Your task to perform on an android device: Open Amazon Image 0: 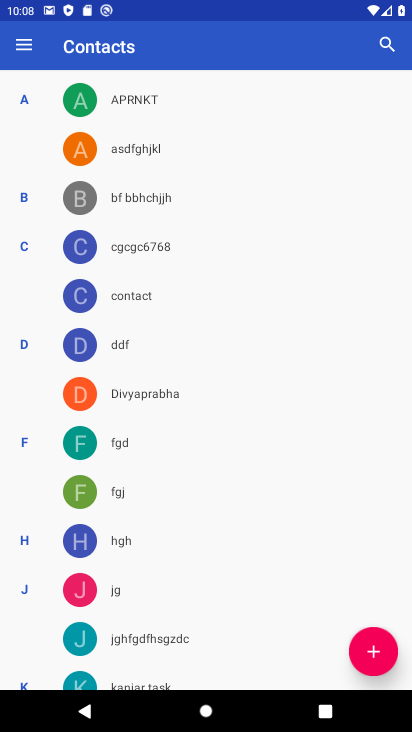
Step 0: drag from (151, 525) to (206, 277)
Your task to perform on an android device: Open Amazon Image 1: 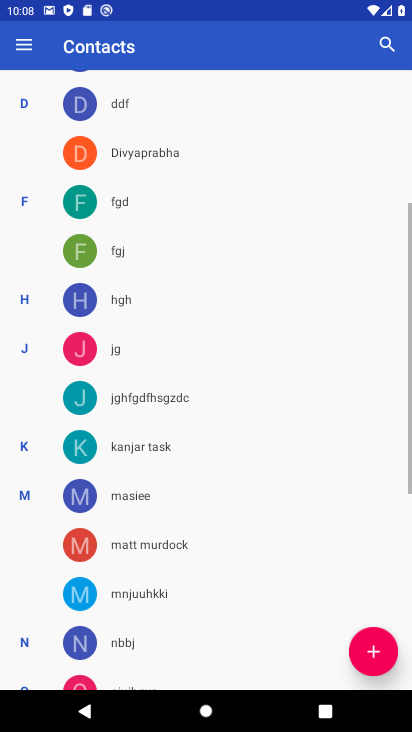
Step 1: press home button
Your task to perform on an android device: Open Amazon Image 2: 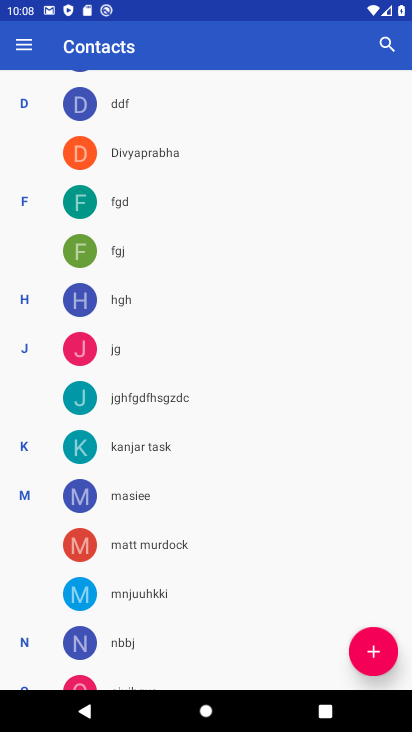
Step 2: drag from (220, 578) to (264, 143)
Your task to perform on an android device: Open Amazon Image 3: 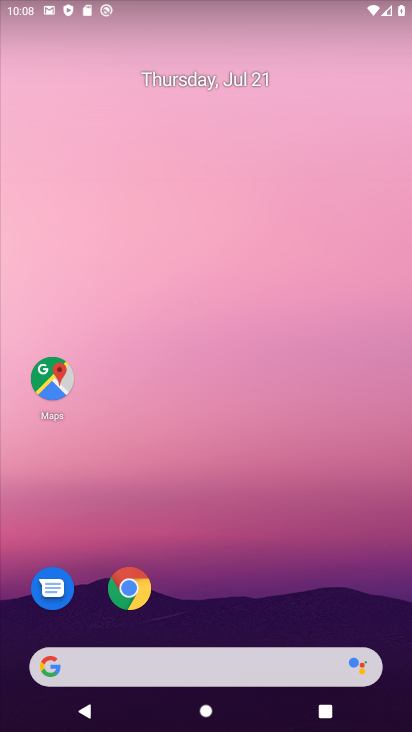
Step 3: drag from (171, 521) to (174, 92)
Your task to perform on an android device: Open Amazon Image 4: 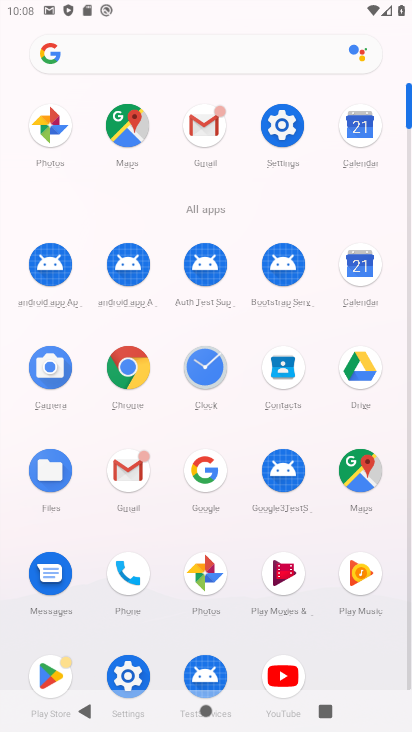
Step 4: click (130, 356)
Your task to perform on an android device: Open Amazon Image 5: 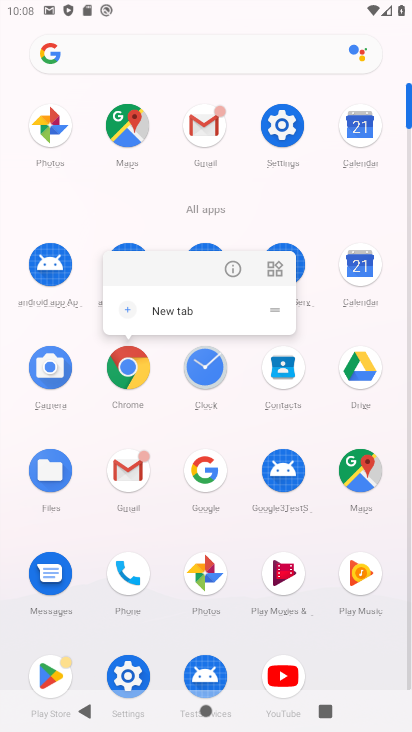
Step 5: click (235, 261)
Your task to perform on an android device: Open Amazon Image 6: 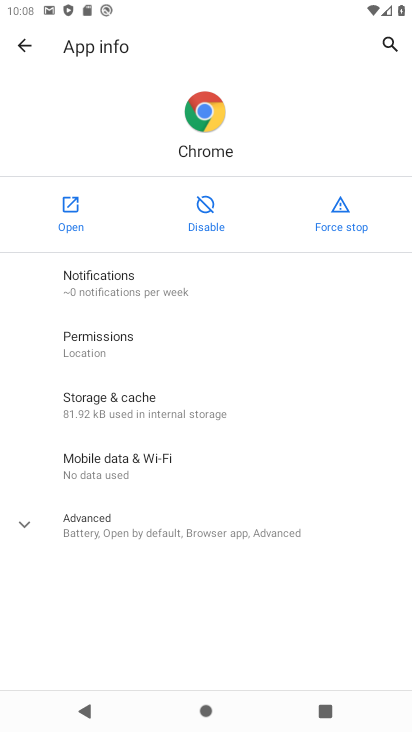
Step 6: click (85, 205)
Your task to perform on an android device: Open Amazon Image 7: 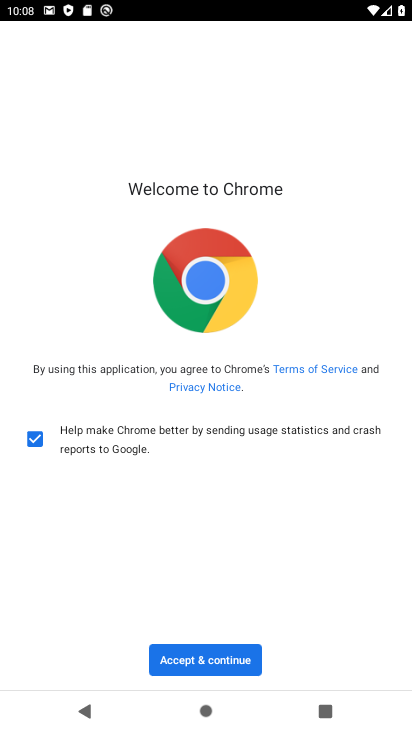
Step 7: click (179, 664)
Your task to perform on an android device: Open Amazon Image 8: 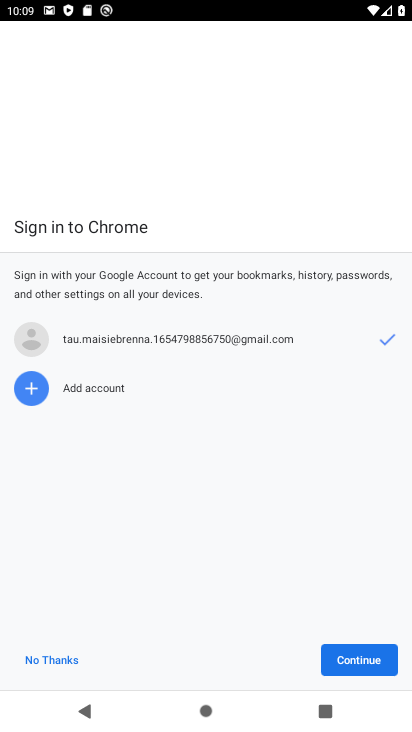
Step 8: click (357, 669)
Your task to perform on an android device: Open Amazon Image 9: 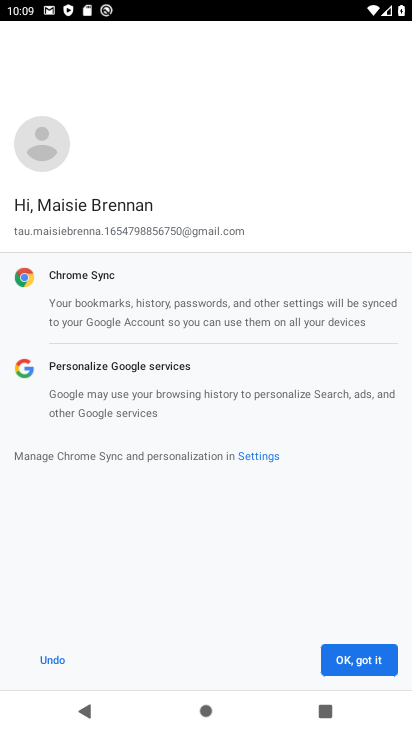
Step 9: click (350, 659)
Your task to perform on an android device: Open Amazon Image 10: 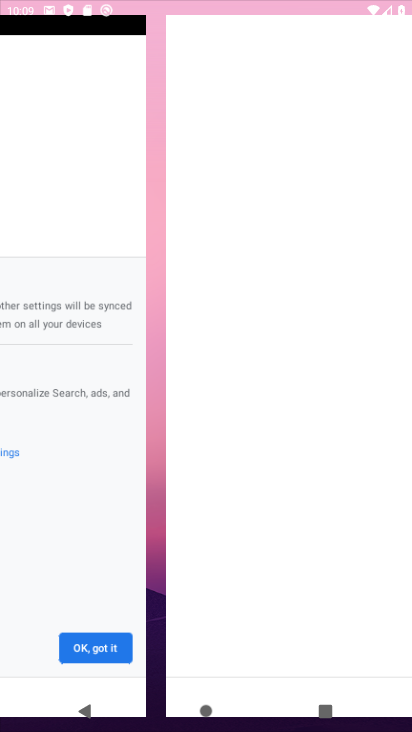
Step 10: click (350, 659)
Your task to perform on an android device: Open Amazon Image 11: 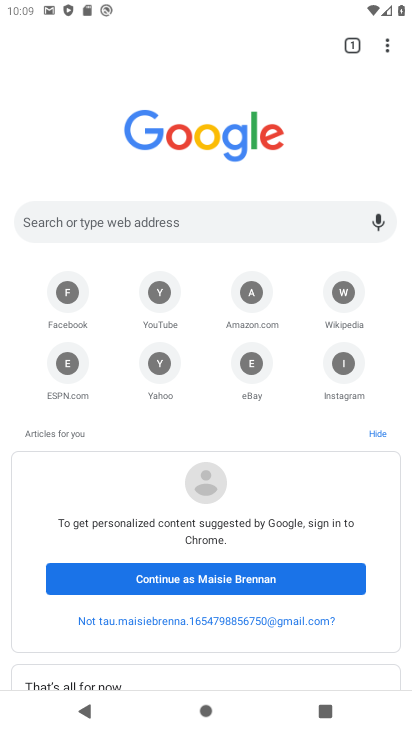
Step 11: drag from (215, 566) to (215, 472)
Your task to perform on an android device: Open Amazon Image 12: 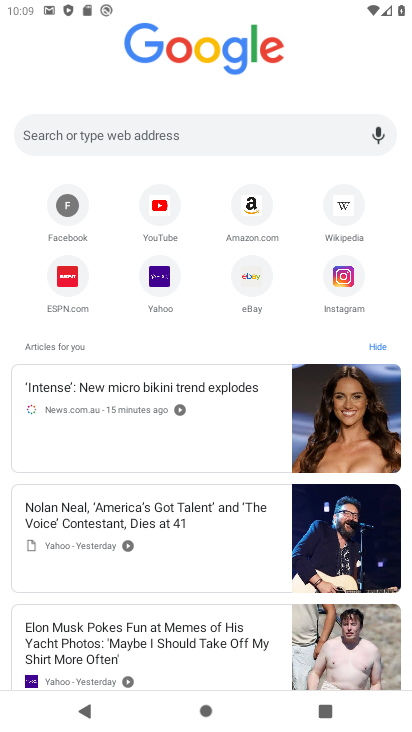
Step 12: click (243, 208)
Your task to perform on an android device: Open Amazon Image 13: 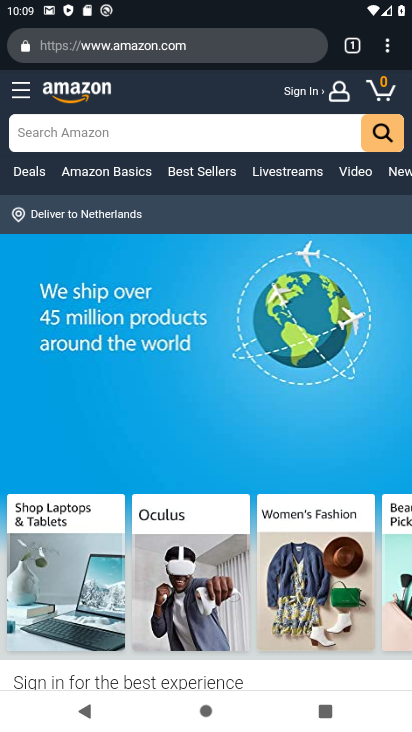
Step 13: task complete